Your task to perform on an android device: What's on my calendar tomorrow? Image 0: 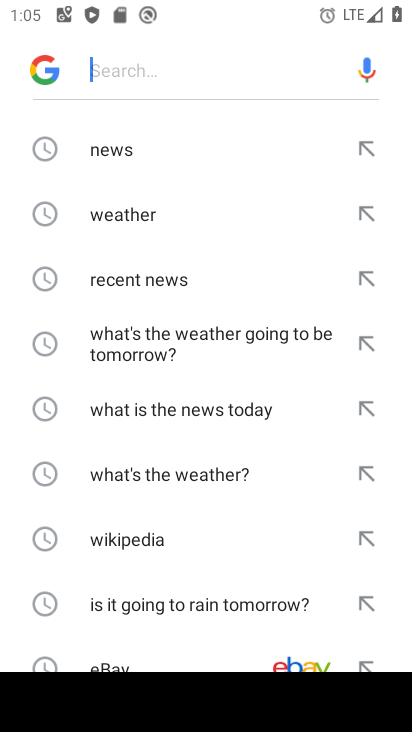
Step 0: press home button
Your task to perform on an android device: What's on my calendar tomorrow? Image 1: 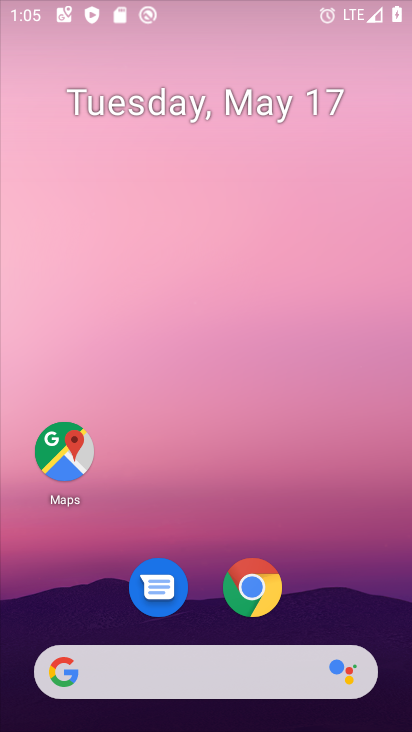
Step 1: drag from (376, 588) to (302, 80)
Your task to perform on an android device: What's on my calendar tomorrow? Image 2: 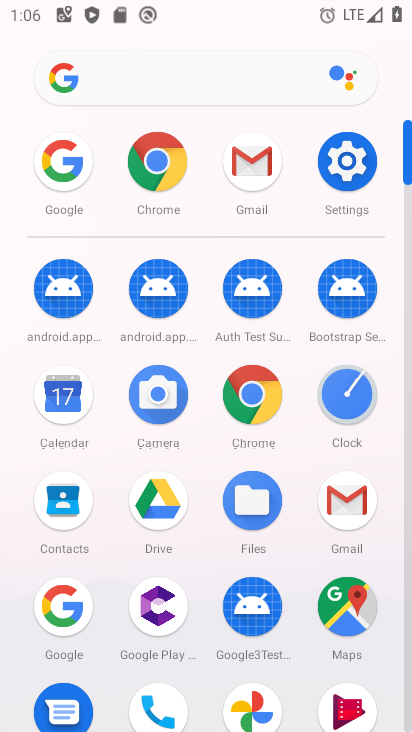
Step 2: click (64, 408)
Your task to perform on an android device: What's on my calendar tomorrow? Image 3: 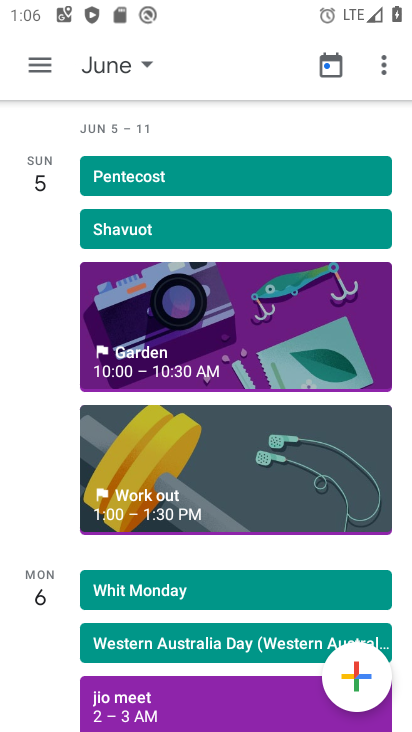
Step 3: task complete